Your task to perform on an android device: Go to sound settings Image 0: 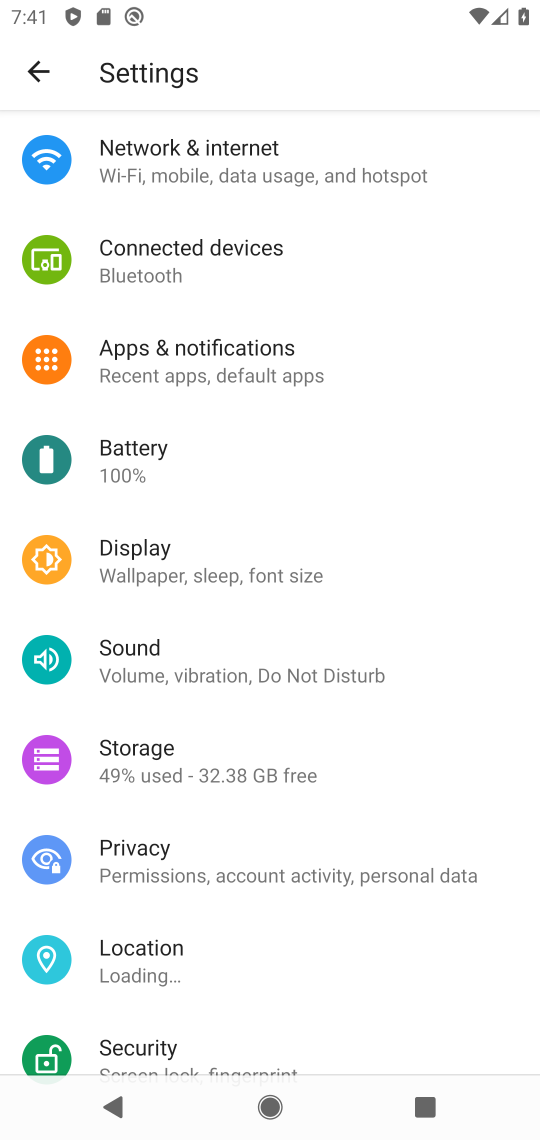
Step 0: click (164, 659)
Your task to perform on an android device: Go to sound settings Image 1: 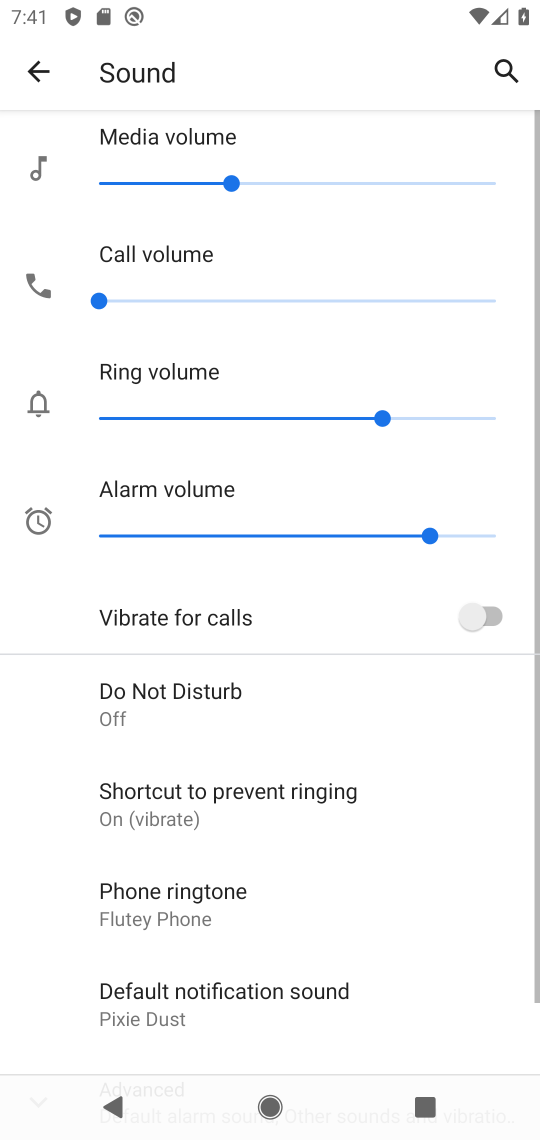
Step 1: drag from (161, 952) to (161, 248)
Your task to perform on an android device: Go to sound settings Image 2: 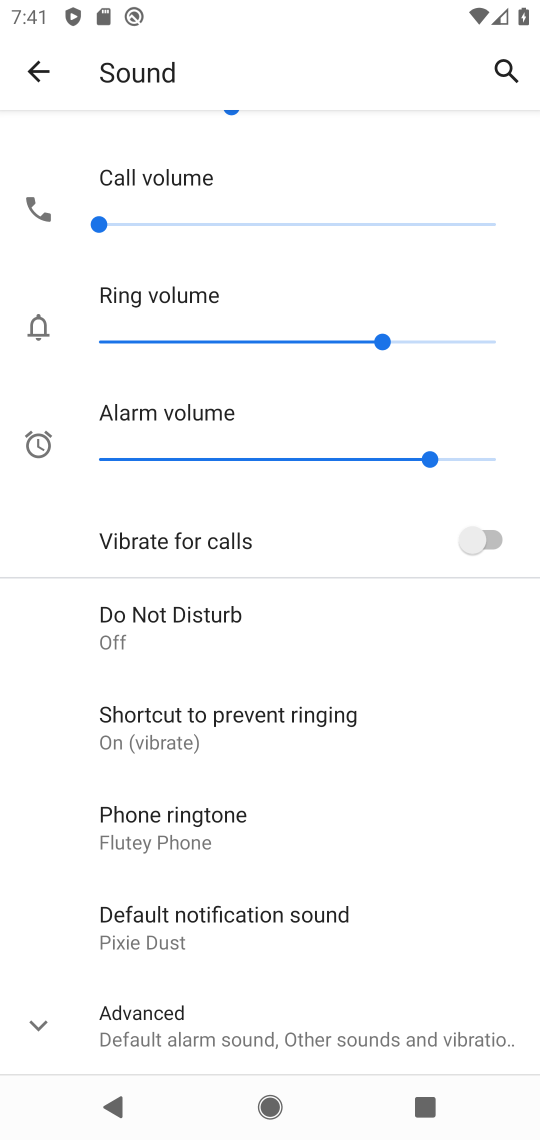
Step 2: click (116, 1013)
Your task to perform on an android device: Go to sound settings Image 3: 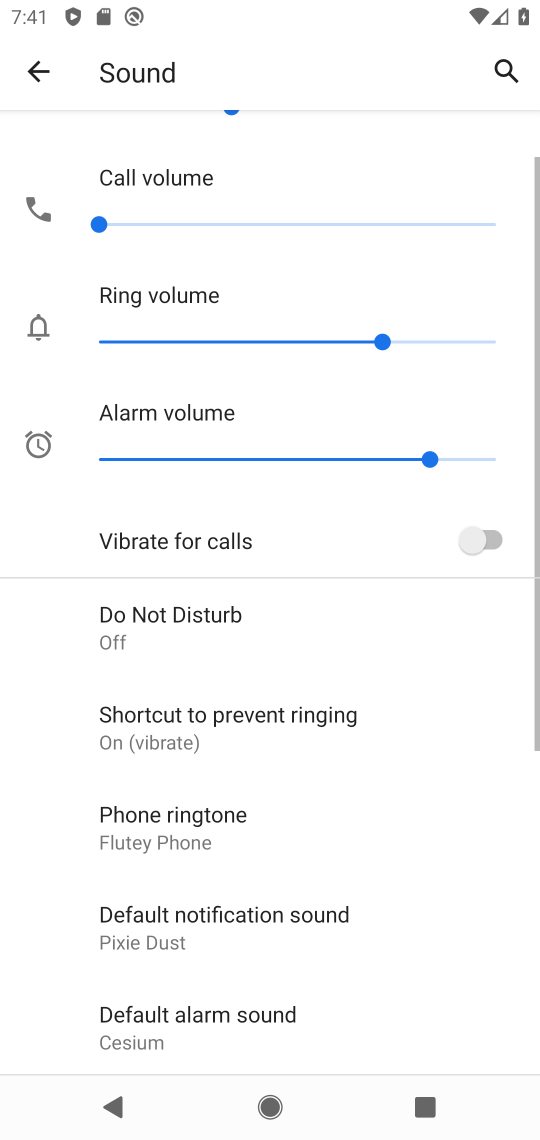
Step 3: task complete